Your task to perform on an android device: Add "razer blade" to the cart on walmart, then select checkout. Image 0: 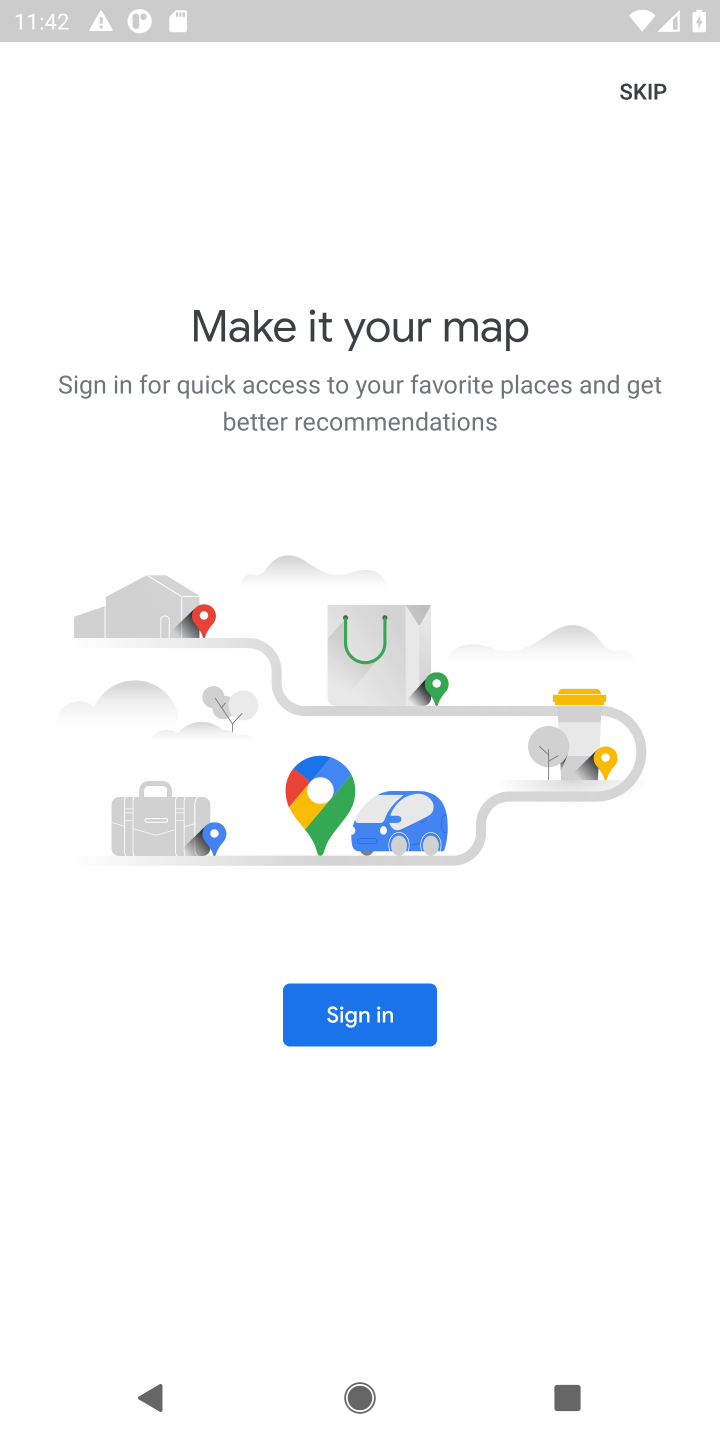
Step 0: press home button
Your task to perform on an android device: Add "razer blade" to the cart on walmart, then select checkout. Image 1: 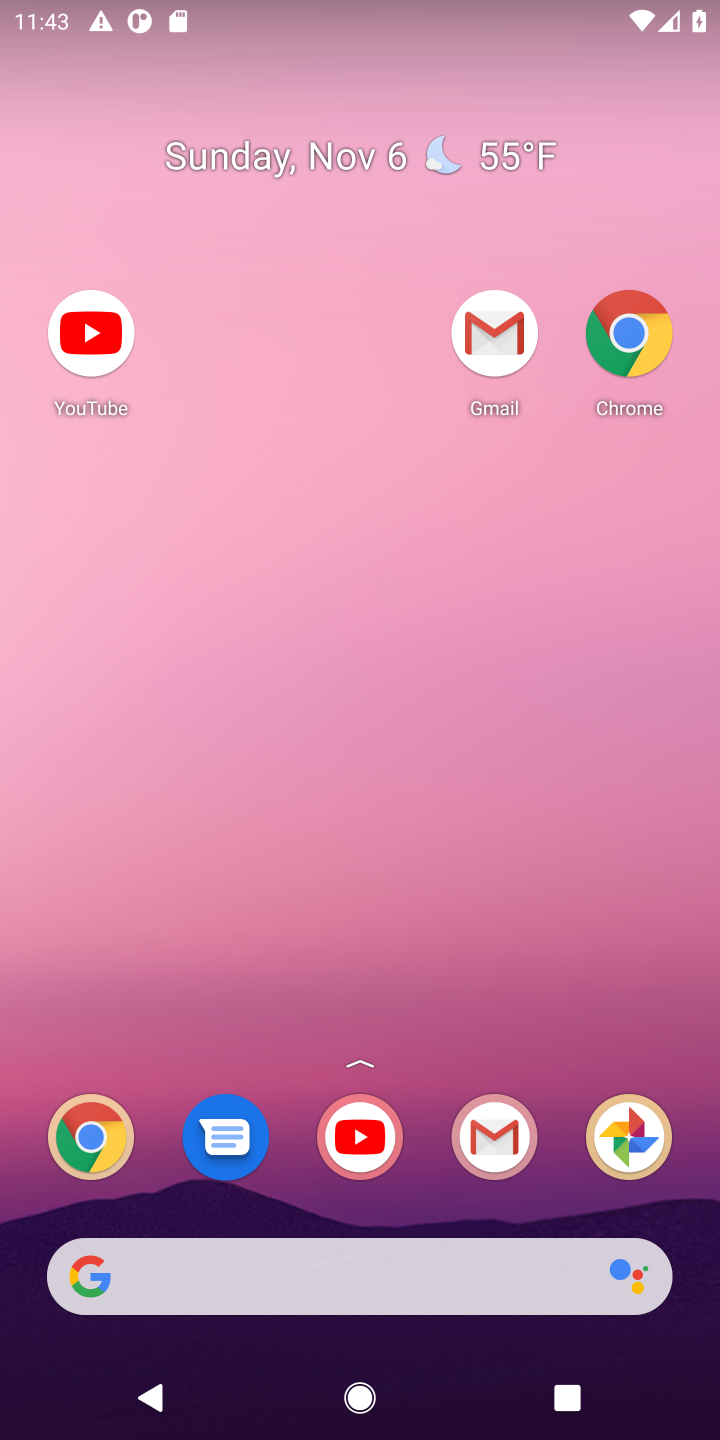
Step 1: drag from (303, 1188) to (329, 42)
Your task to perform on an android device: Add "razer blade" to the cart on walmart, then select checkout. Image 2: 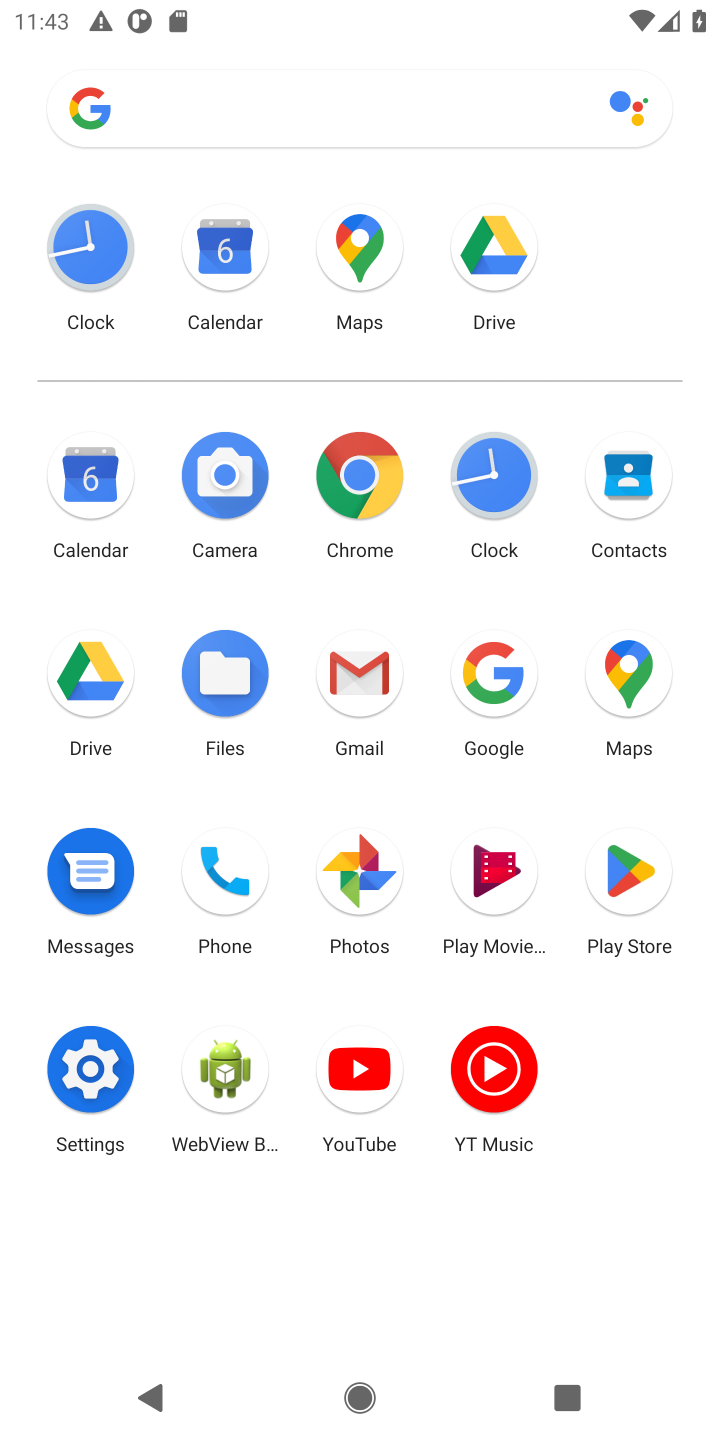
Step 2: click (354, 468)
Your task to perform on an android device: Add "razer blade" to the cart on walmart, then select checkout. Image 3: 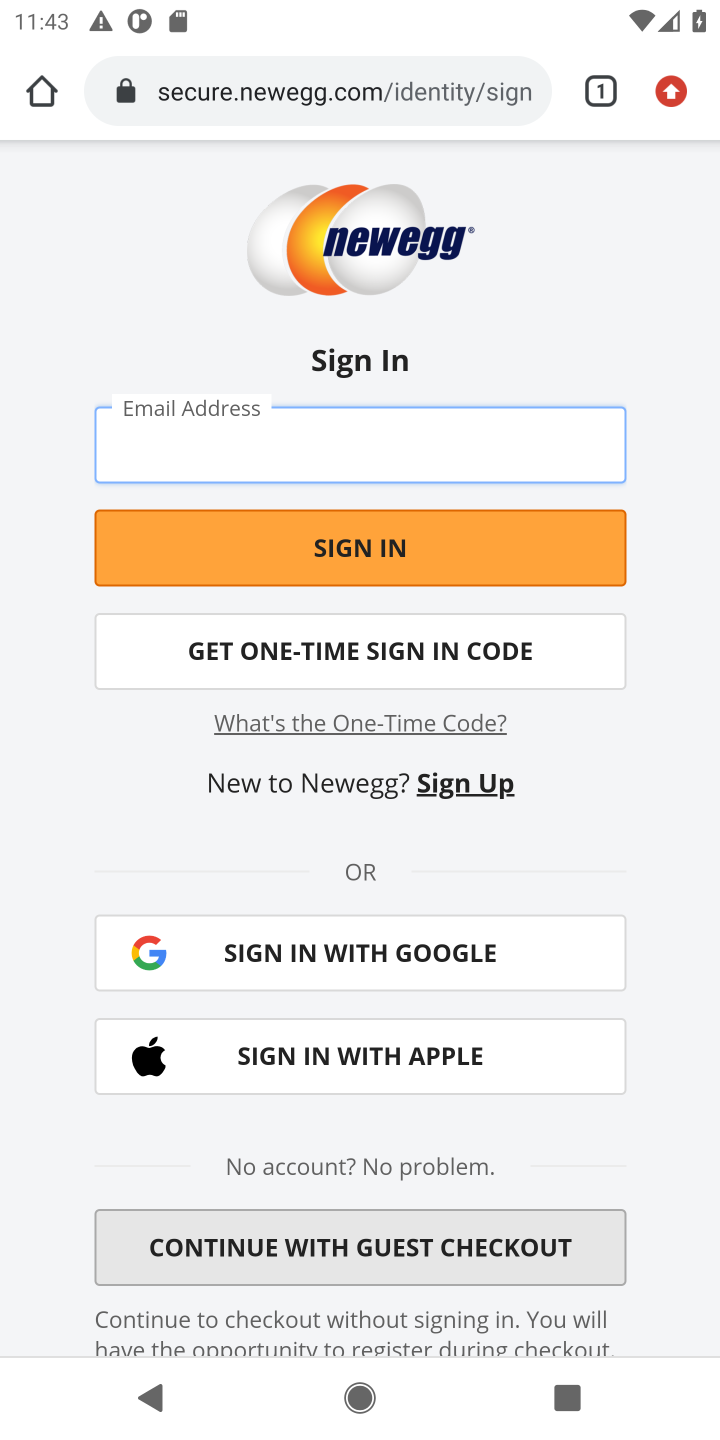
Step 3: click (390, 97)
Your task to perform on an android device: Add "razer blade" to the cart on walmart, then select checkout. Image 4: 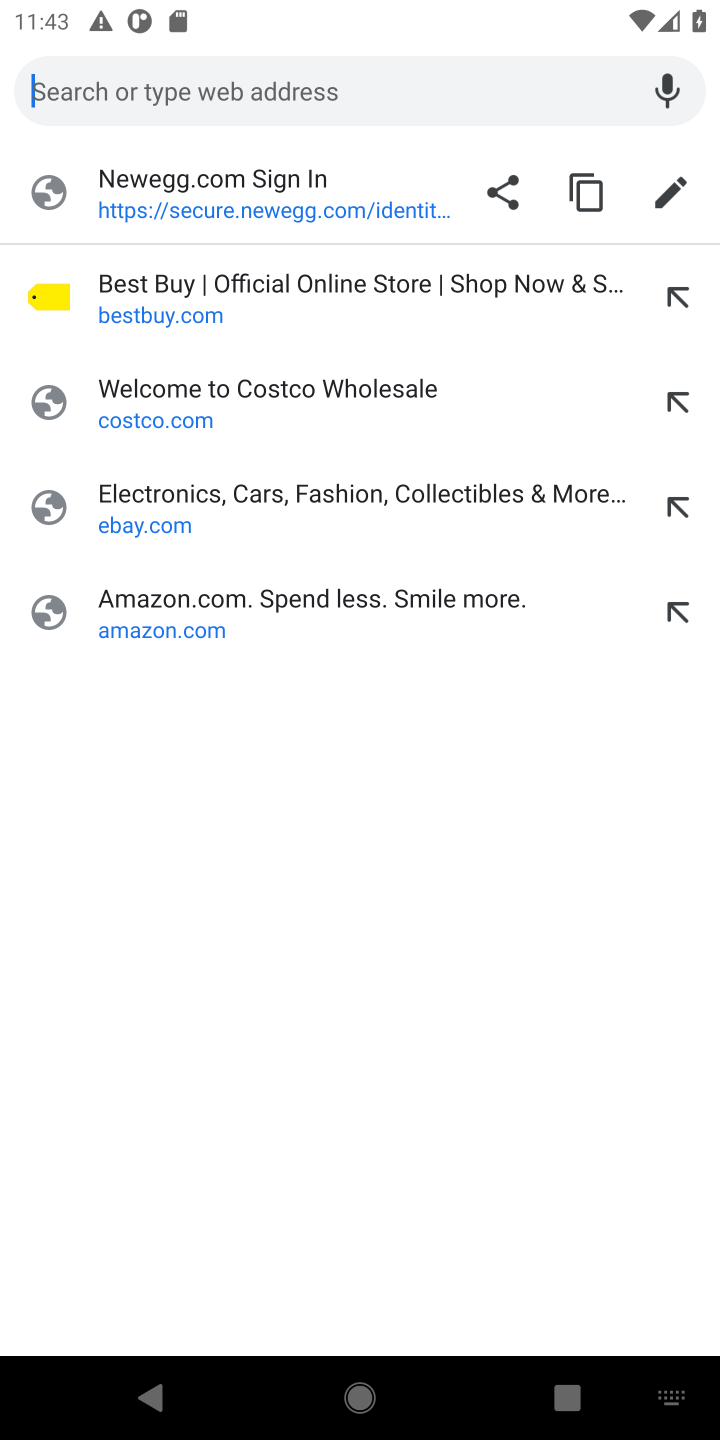
Step 4: type "walmart.com"
Your task to perform on an android device: Add "razer blade" to the cart on walmart, then select checkout. Image 5: 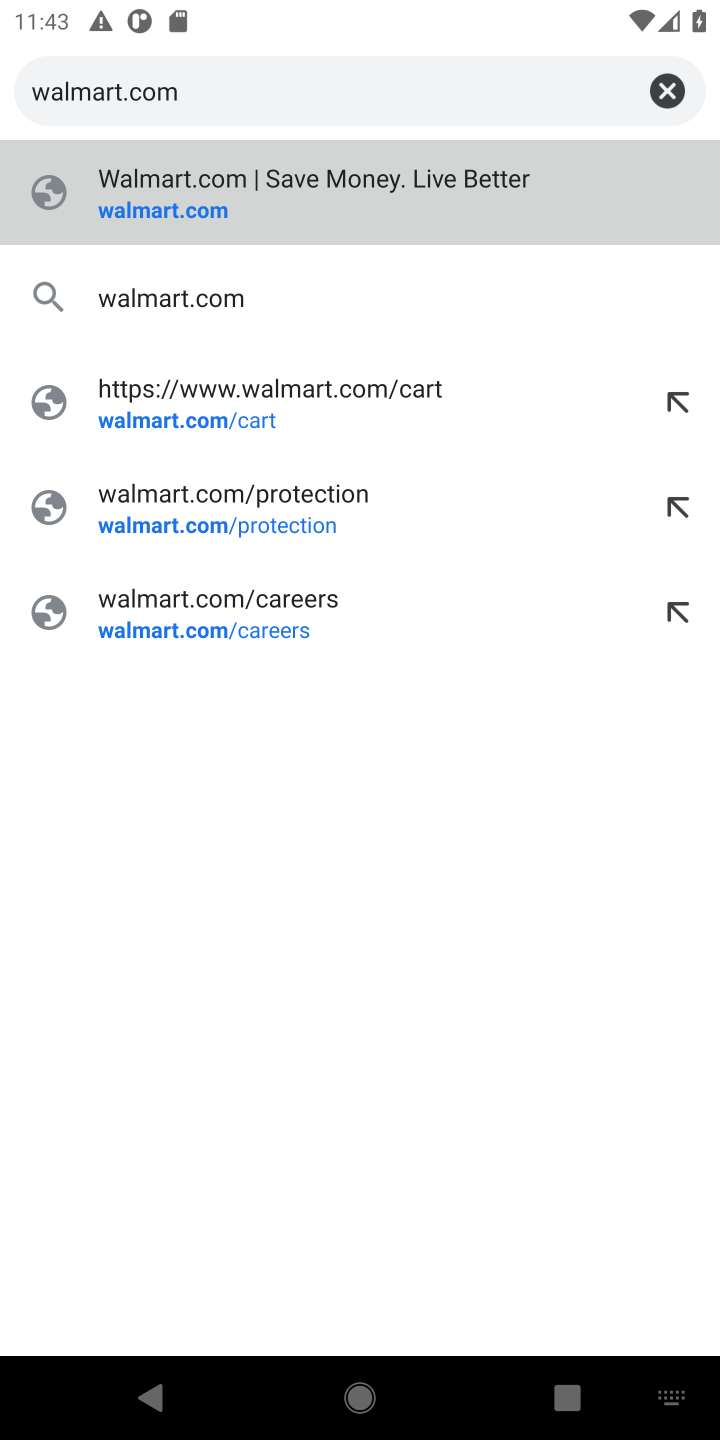
Step 5: press enter
Your task to perform on an android device: Add "razer blade" to the cart on walmart, then select checkout. Image 6: 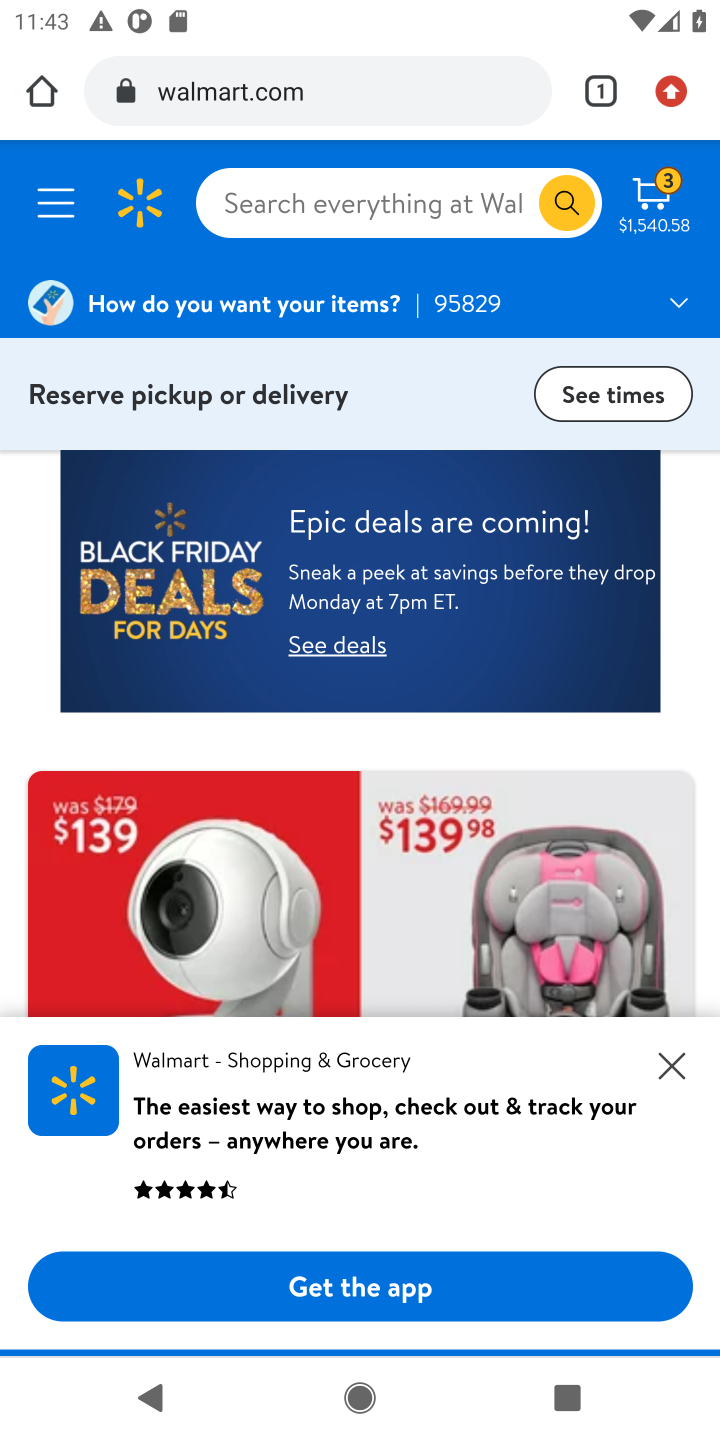
Step 6: click (416, 201)
Your task to perform on an android device: Add "razer blade" to the cart on walmart, then select checkout. Image 7: 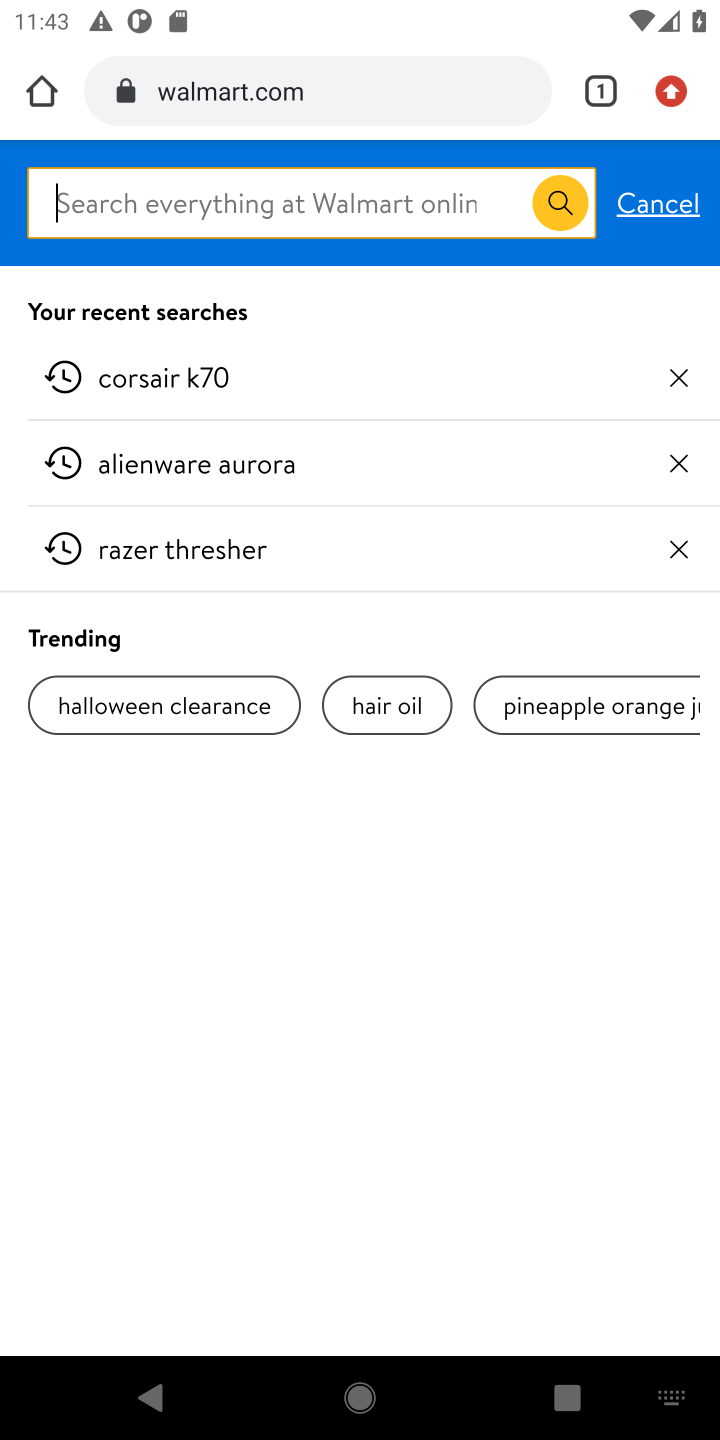
Step 7: type "razer blade"
Your task to perform on an android device: Add "razer blade" to the cart on walmart, then select checkout. Image 8: 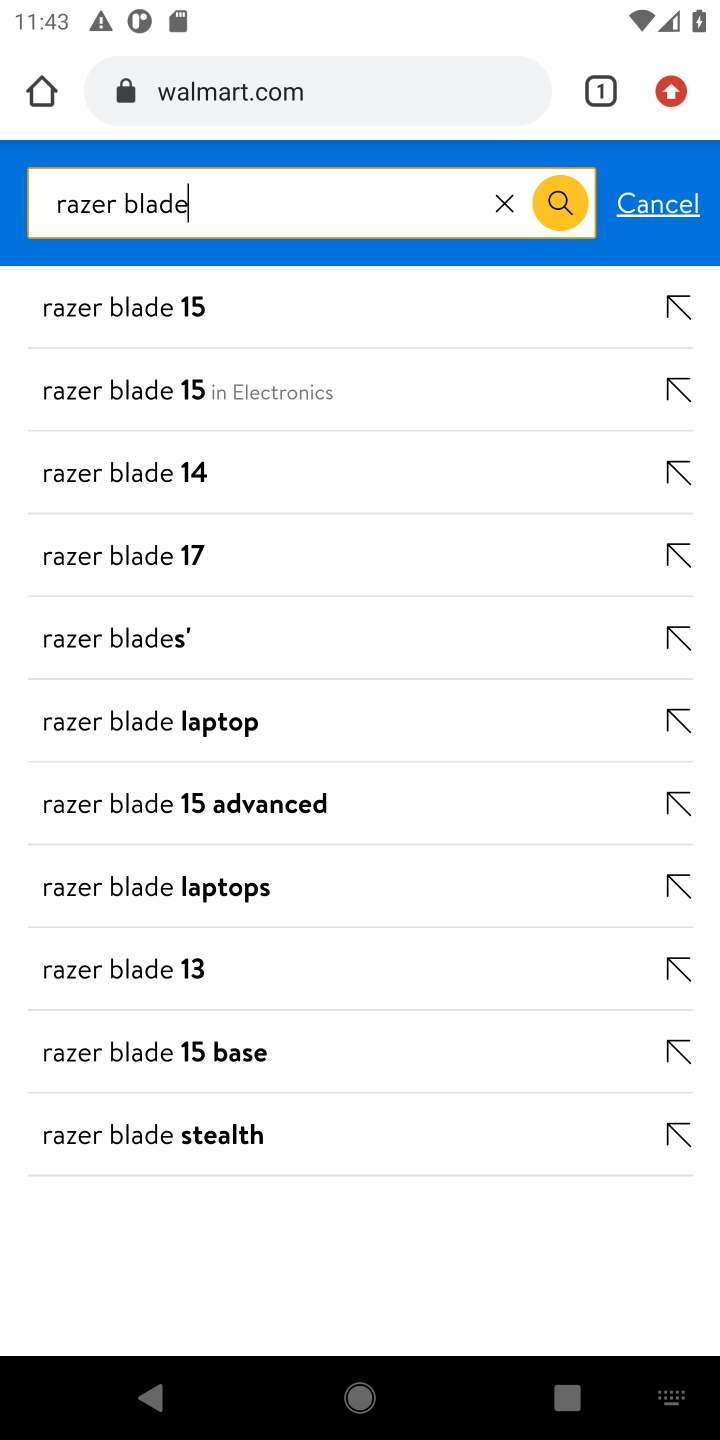
Step 8: press enter
Your task to perform on an android device: Add "razer blade" to the cart on walmart, then select checkout. Image 9: 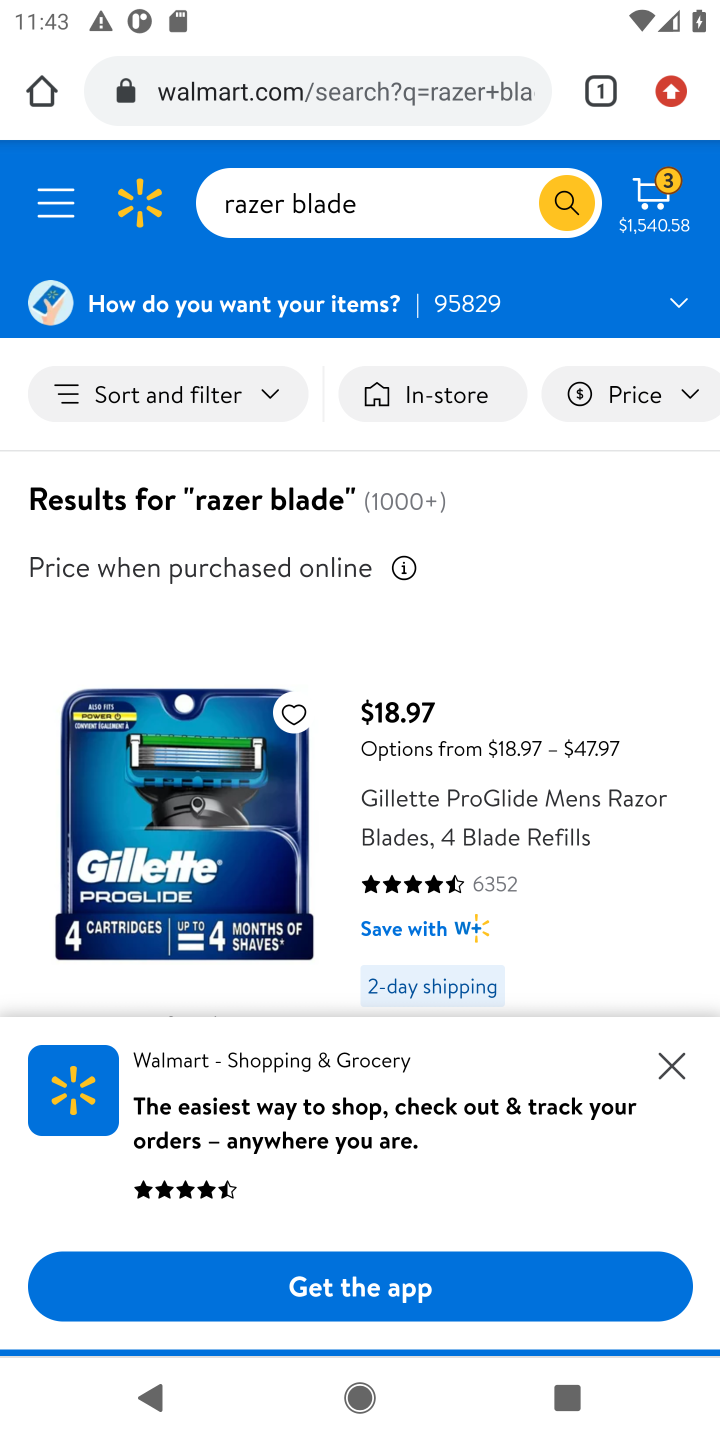
Step 9: task complete